Your task to perform on an android device: remove spam from my inbox in the gmail app Image 0: 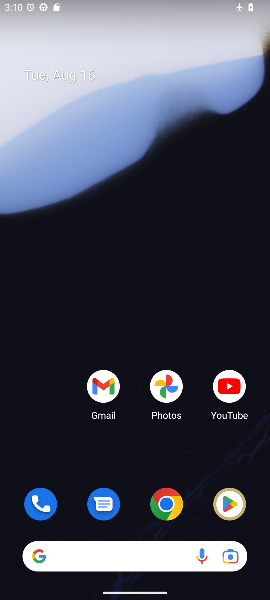
Step 0: click (100, 389)
Your task to perform on an android device: remove spam from my inbox in the gmail app Image 1: 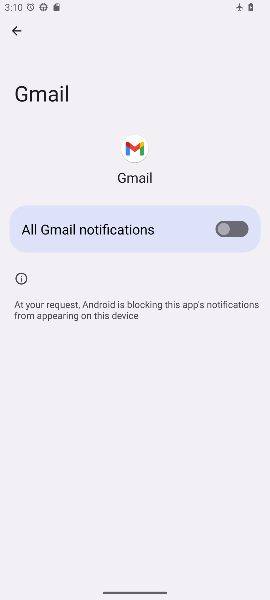
Step 1: click (18, 26)
Your task to perform on an android device: remove spam from my inbox in the gmail app Image 2: 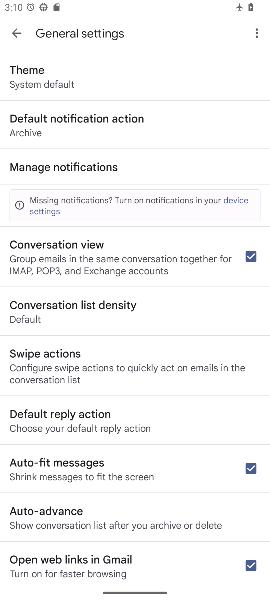
Step 2: click (19, 34)
Your task to perform on an android device: remove spam from my inbox in the gmail app Image 3: 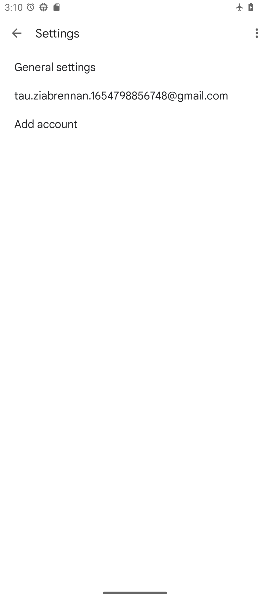
Step 3: click (19, 34)
Your task to perform on an android device: remove spam from my inbox in the gmail app Image 4: 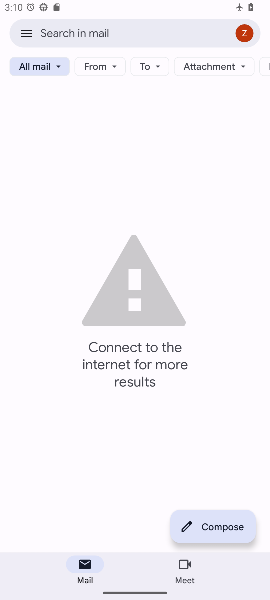
Step 4: click (25, 31)
Your task to perform on an android device: remove spam from my inbox in the gmail app Image 5: 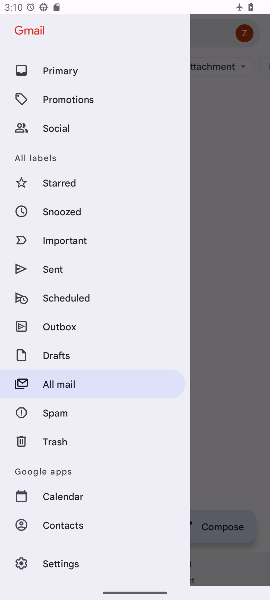
Step 5: click (50, 408)
Your task to perform on an android device: remove spam from my inbox in the gmail app Image 6: 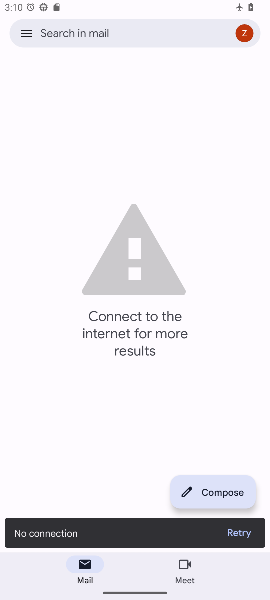
Step 6: task complete